Your task to perform on an android device: Search for seafood restaurants on Google Maps Image 0: 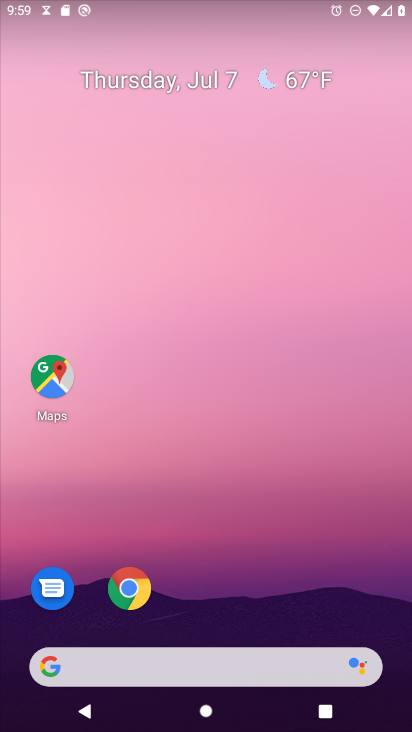
Step 0: click (52, 376)
Your task to perform on an android device: Search for seafood restaurants on Google Maps Image 1: 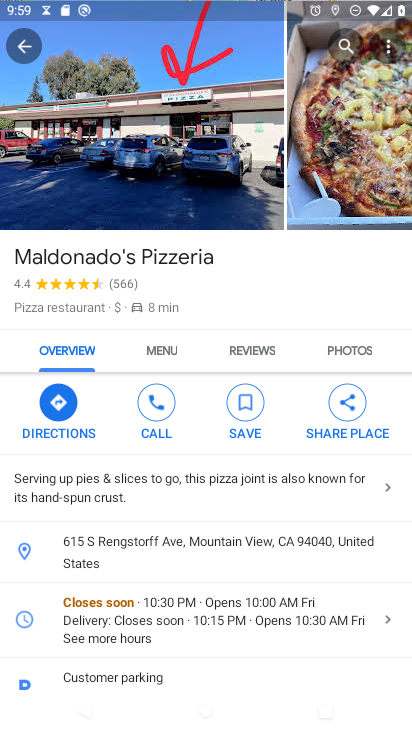
Step 1: press back button
Your task to perform on an android device: Search for seafood restaurants on Google Maps Image 2: 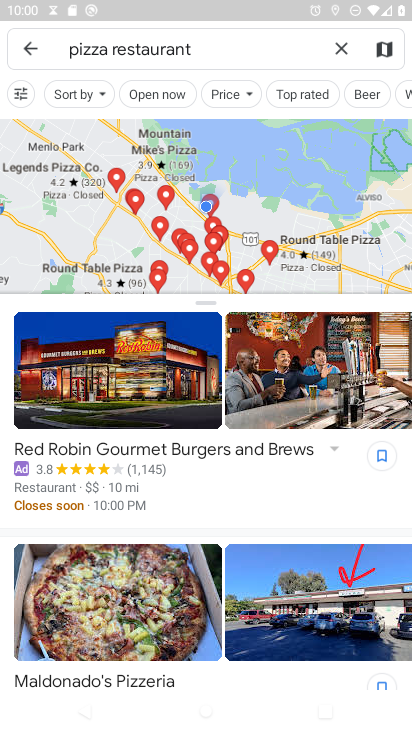
Step 2: click (341, 48)
Your task to perform on an android device: Search for seafood restaurants on Google Maps Image 3: 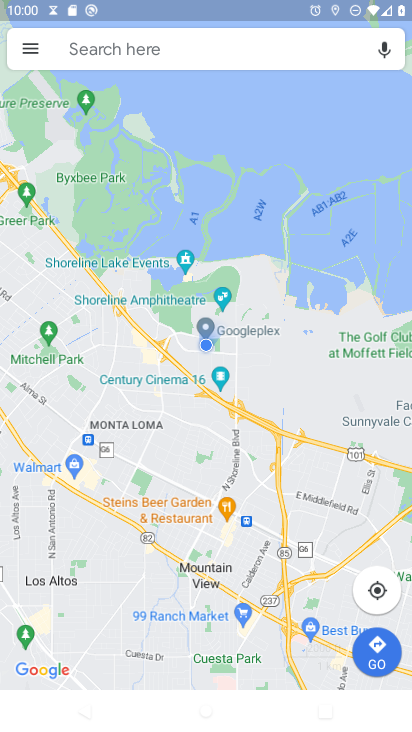
Step 3: click (229, 51)
Your task to perform on an android device: Search for seafood restaurants on Google Maps Image 4: 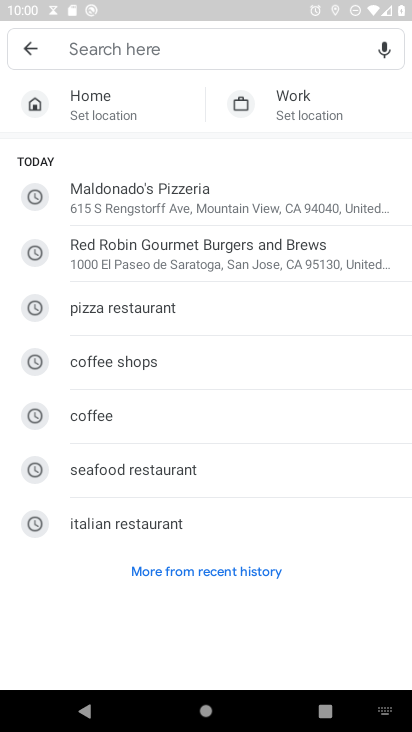
Step 4: type "seafood restaurants"
Your task to perform on an android device: Search for seafood restaurants on Google Maps Image 5: 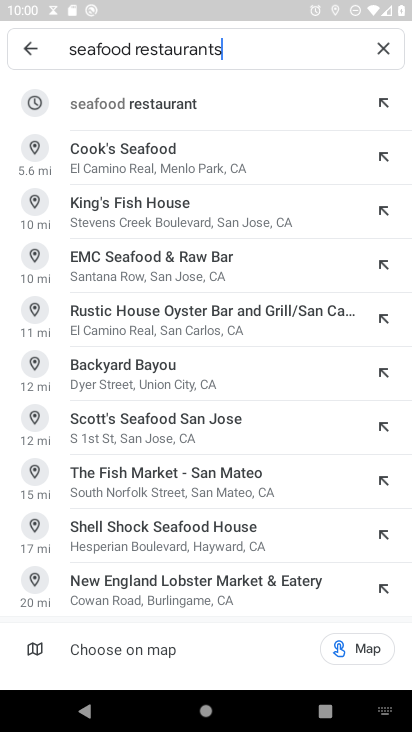
Step 5: click (179, 104)
Your task to perform on an android device: Search for seafood restaurants on Google Maps Image 6: 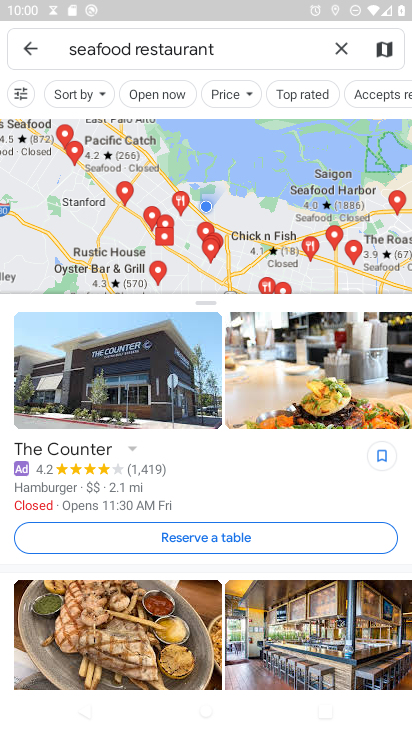
Step 6: drag from (87, 645) to (170, 322)
Your task to perform on an android device: Search for seafood restaurants on Google Maps Image 7: 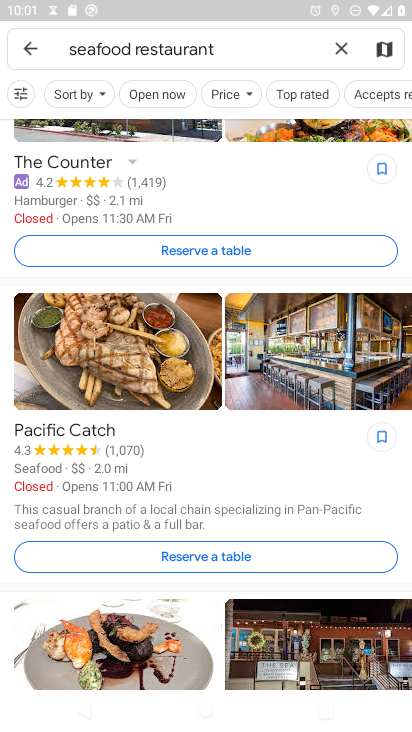
Step 7: click (88, 427)
Your task to perform on an android device: Search for seafood restaurants on Google Maps Image 8: 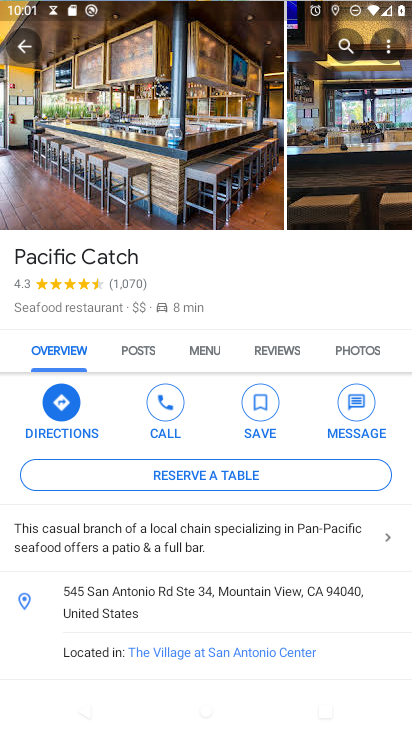
Step 8: task complete